Your task to perform on an android device: change the clock display to digital Image 0: 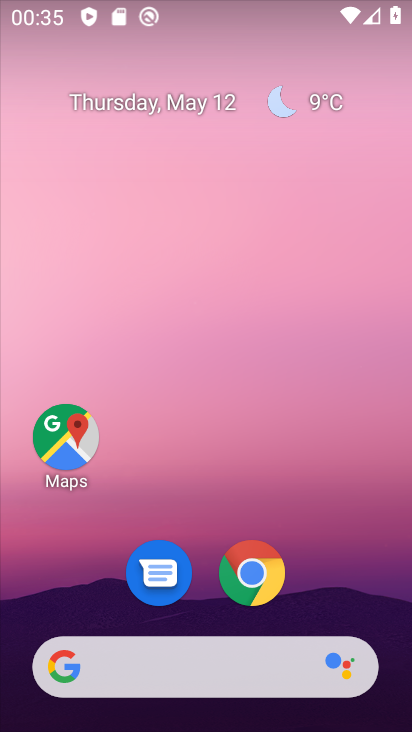
Step 0: drag from (212, 604) to (216, 136)
Your task to perform on an android device: change the clock display to digital Image 1: 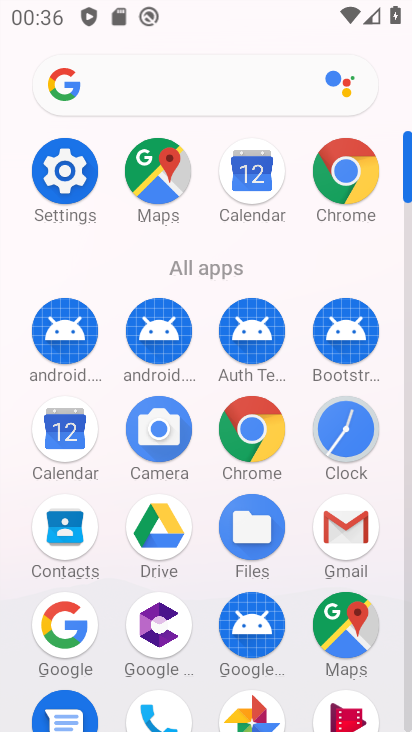
Step 1: click (370, 428)
Your task to perform on an android device: change the clock display to digital Image 2: 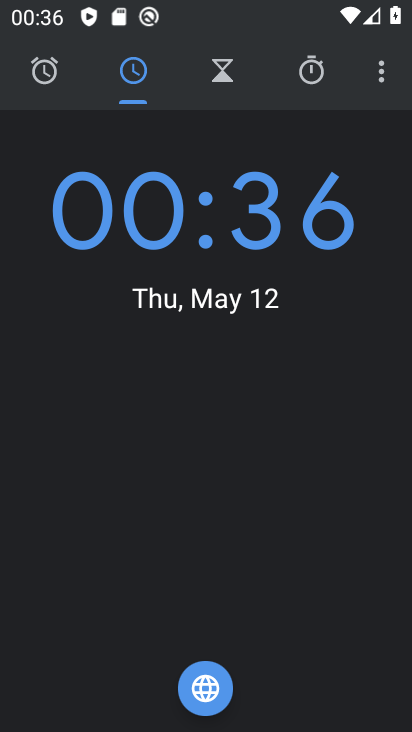
Step 2: click (379, 64)
Your task to perform on an android device: change the clock display to digital Image 3: 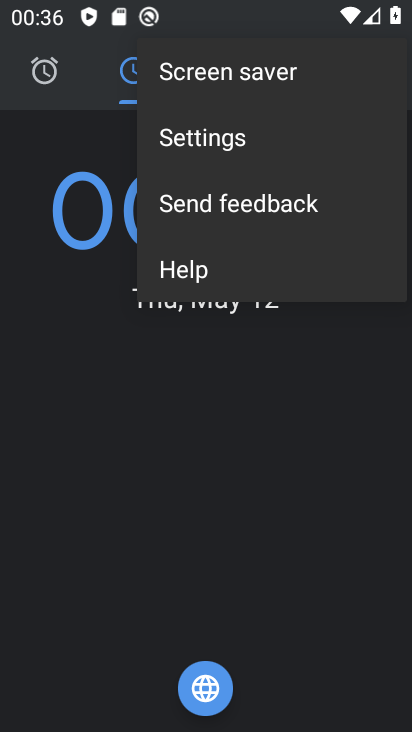
Step 3: click (248, 155)
Your task to perform on an android device: change the clock display to digital Image 4: 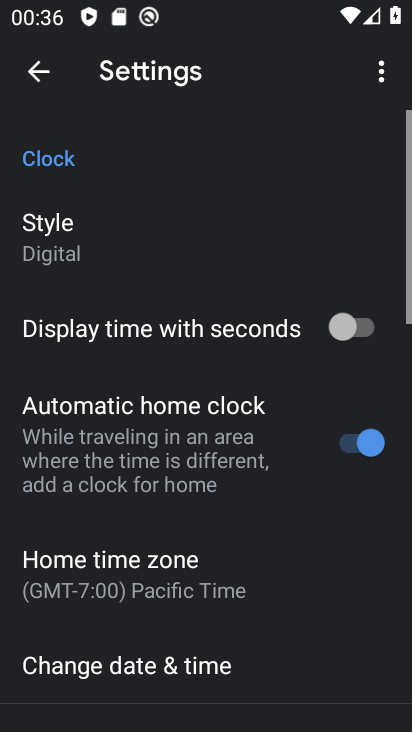
Step 4: click (80, 259)
Your task to perform on an android device: change the clock display to digital Image 5: 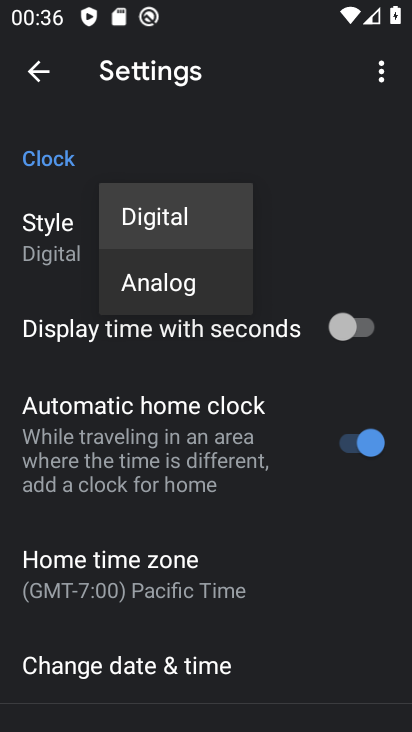
Step 5: task complete